Your task to perform on an android device: allow notifications from all sites in the chrome app Image 0: 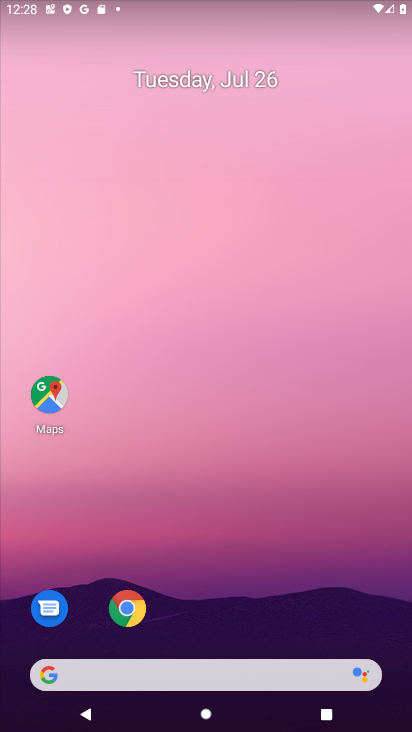
Step 0: click (127, 611)
Your task to perform on an android device: allow notifications from all sites in the chrome app Image 1: 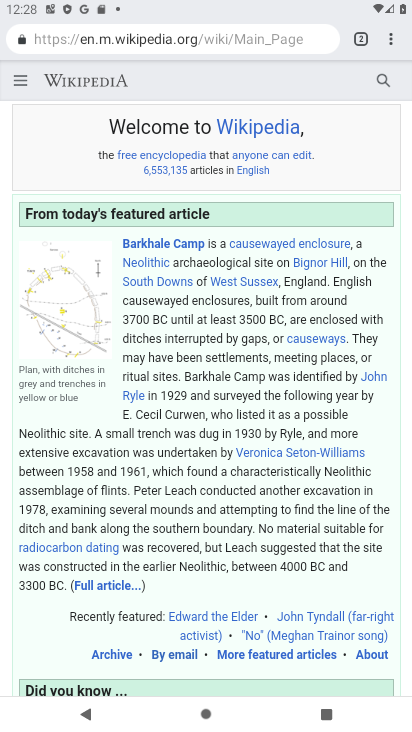
Step 1: click (396, 27)
Your task to perform on an android device: allow notifications from all sites in the chrome app Image 2: 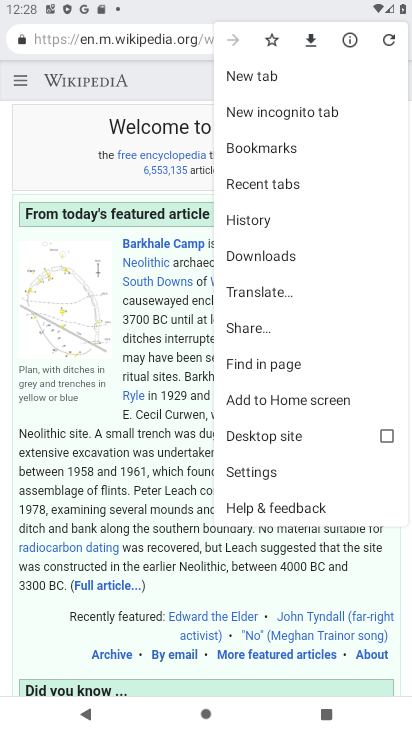
Step 2: click (243, 467)
Your task to perform on an android device: allow notifications from all sites in the chrome app Image 3: 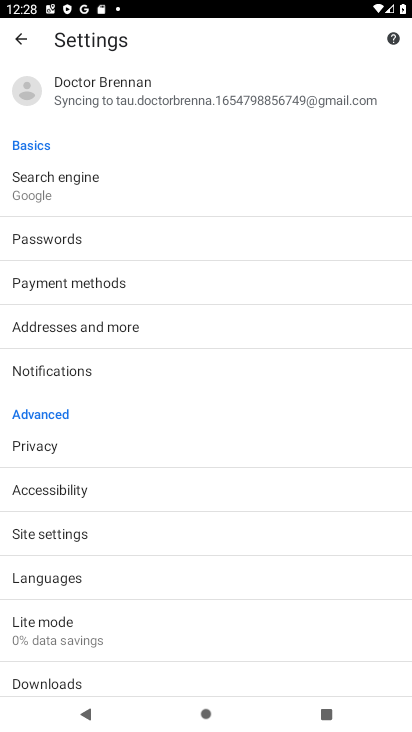
Step 3: click (90, 372)
Your task to perform on an android device: allow notifications from all sites in the chrome app Image 4: 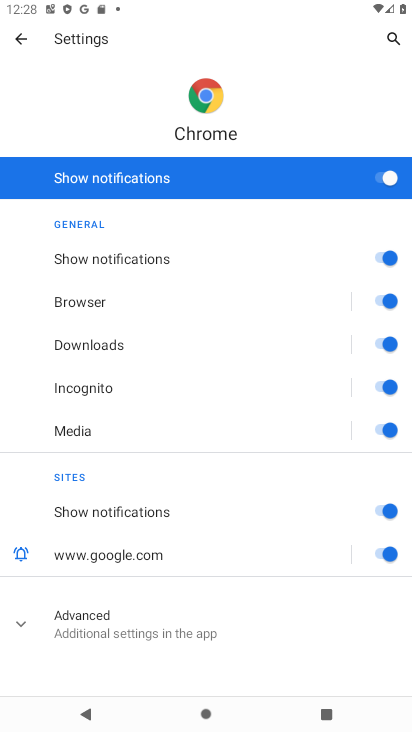
Step 4: task complete